Your task to perform on an android device: Search for Italian restaurants on Maps Image 0: 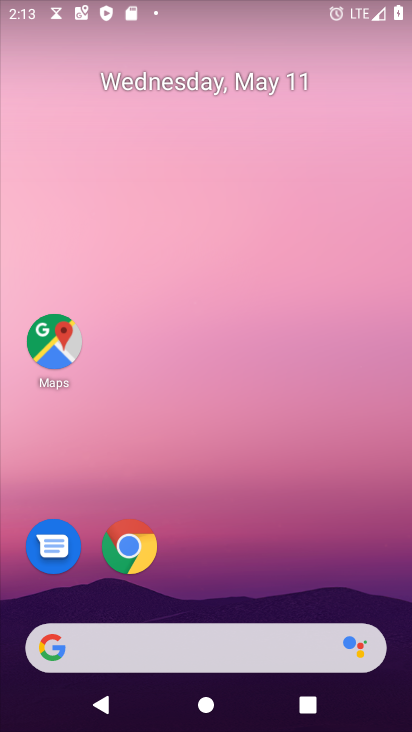
Step 0: drag from (341, 513) to (403, 5)
Your task to perform on an android device: Search for Italian restaurants on Maps Image 1: 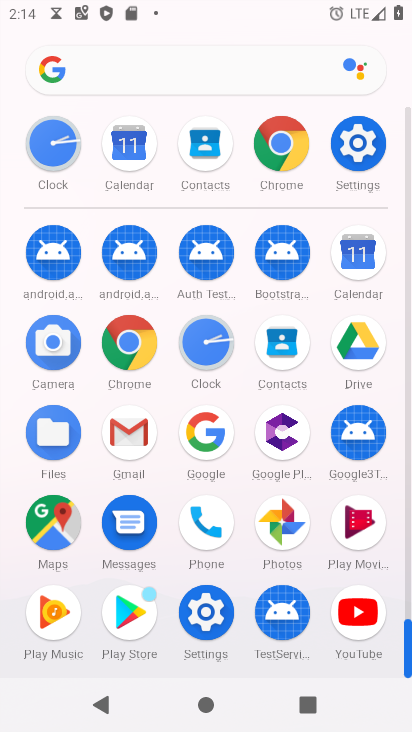
Step 1: click (50, 534)
Your task to perform on an android device: Search for Italian restaurants on Maps Image 2: 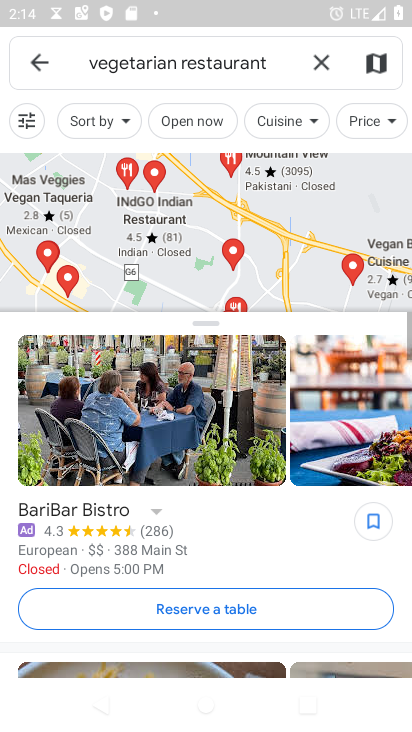
Step 2: click (314, 56)
Your task to perform on an android device: Search for Italian restaurants on Maps Image 3: 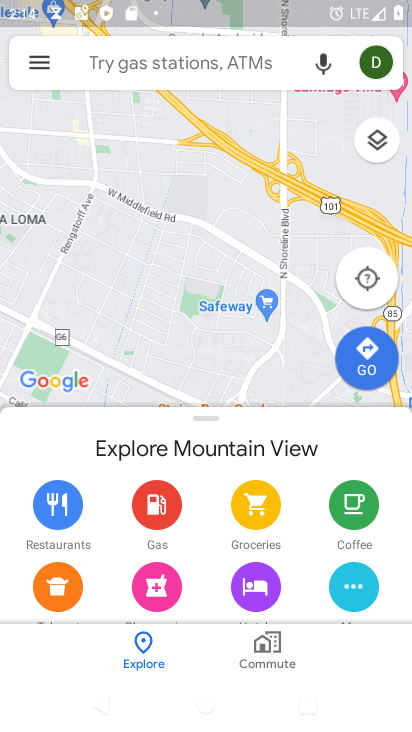
Step 3: type "italian restaurant"
Your task to perform on an android device: Search for Italian restaurants on Maps Image 4: 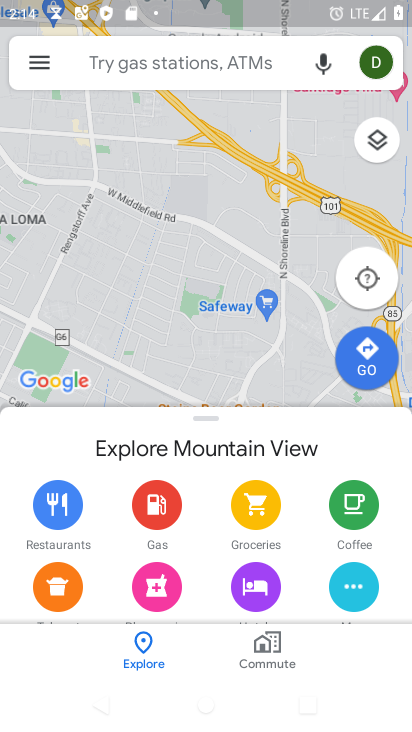
Step 4: click (233, 58)
Your task to perform on an android device: Search for Italian restaurants on Maps Image 5: 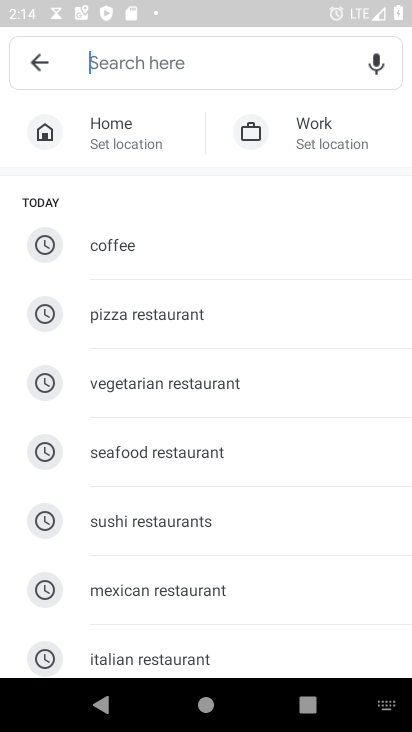
Step 5: click (266, 648)
Your task to perform on an android device: Search for Italian restaurants on Maps Image 6: 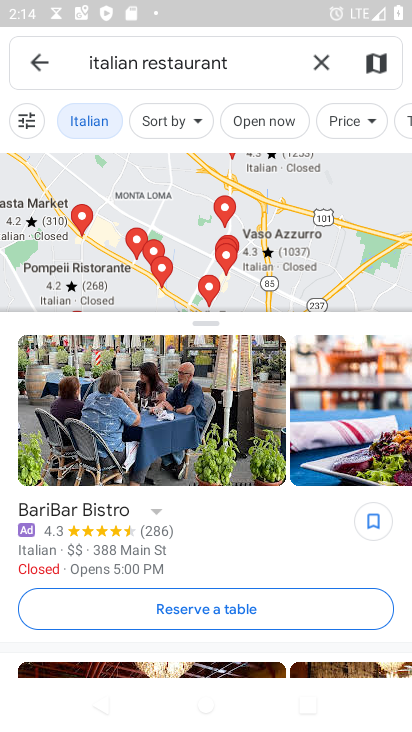
Step 6: task complete